Your task to perform on an android device: Check the weather Image 0: 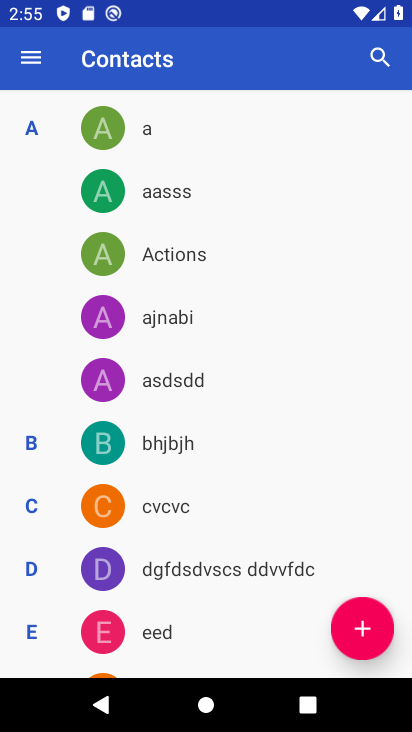
Step 0: press home button
Your task to perform on an android device: Check the weather Image 1: 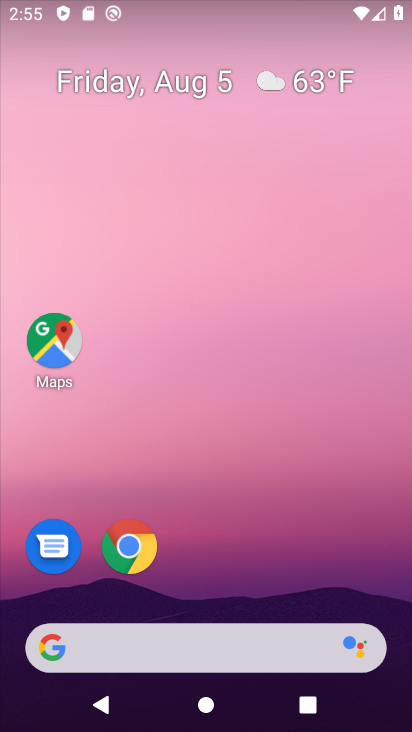
Step 1: click (259, 637)
Your task to perform on an android device: Check the weather Image 2: 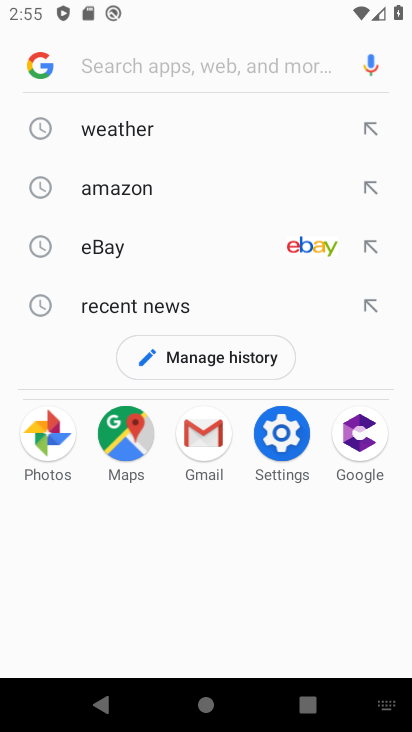
Step 2: click (166, 124)
Your task to perform on an android device: Check the weather Image 3: 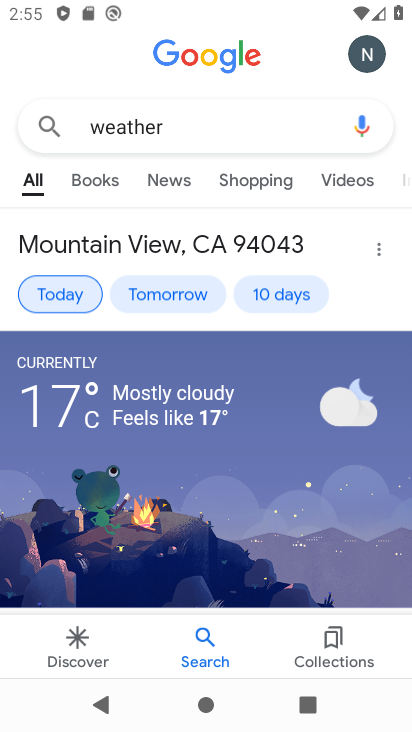
Step 3: task complete